Your task to perform on an android device: see tabs open on other devices in the chrome app Image 0: 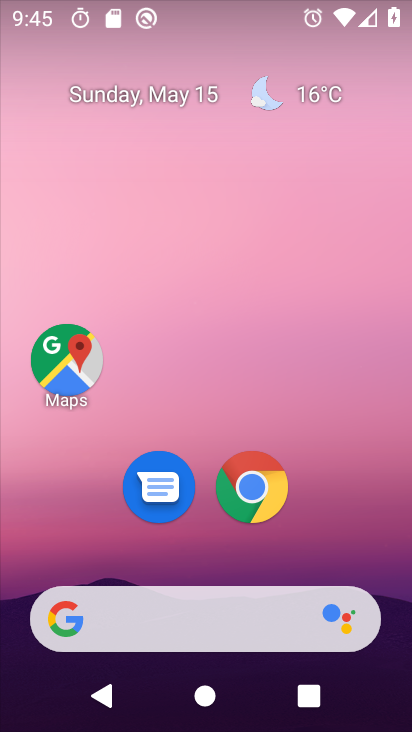
Step 0: click (337, 144)
Your task to perform on an android device: see tabs open on other devices in the chrome app Image 1: 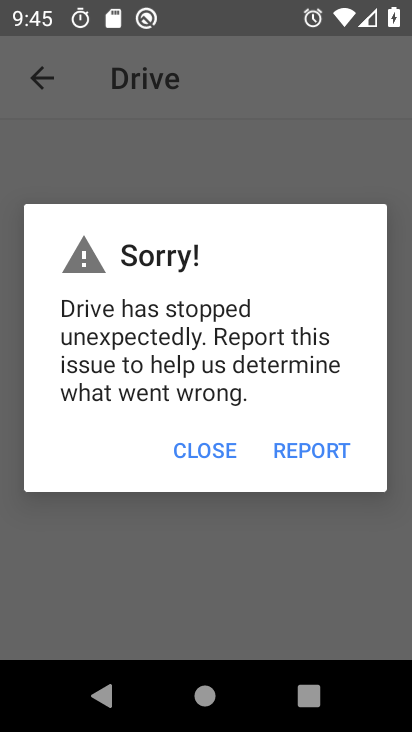
Step 1: press home button
Your task to perform on an android device: see tabs open on other devices in the chrome app Image 2: 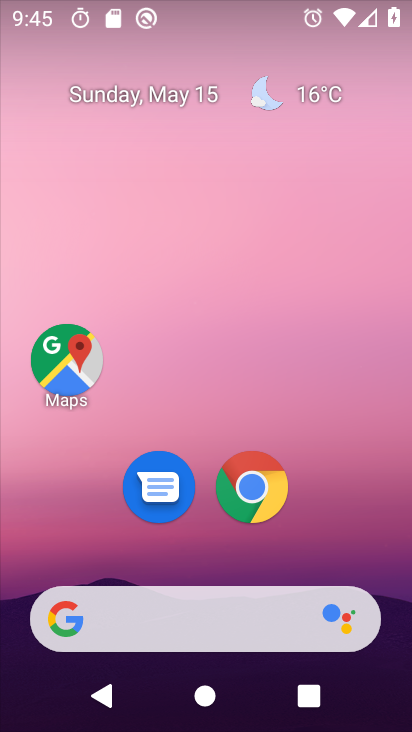
Step 2: drag from (348, 446) to (329, 81)
Your task to perform on an android device: see tabs open on other devices in the chrome app Image 3: 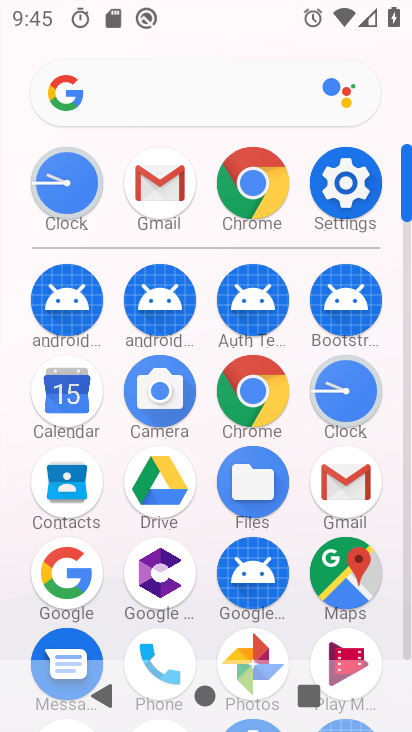
Step 3: click (248, 388)
Your task to perform on an android device: see tabs open on other devices in the chrome app Image 4: 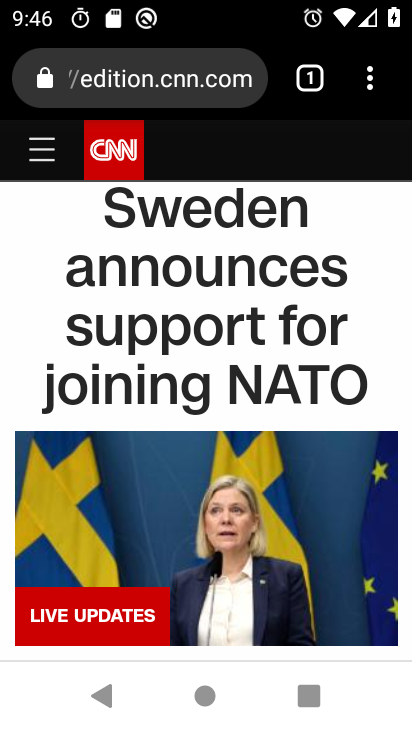
Step 4: click (315, 64)
Your task to perform on an android device: see tabs open on other devices in the chrome app Image 5: 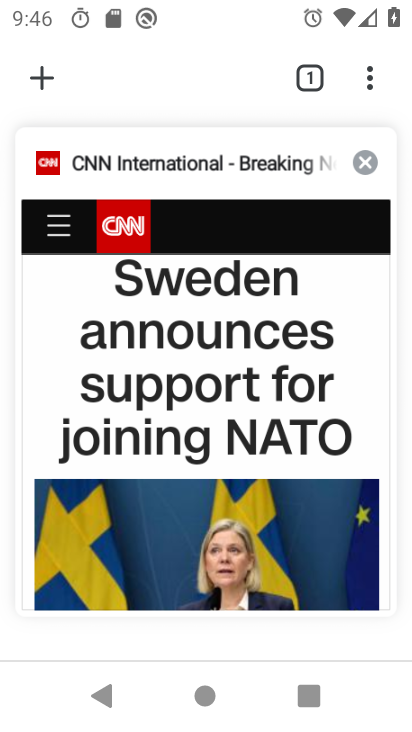
Step 5: task complete